Your task to perform on an android device: Go to Amazon Image 0: 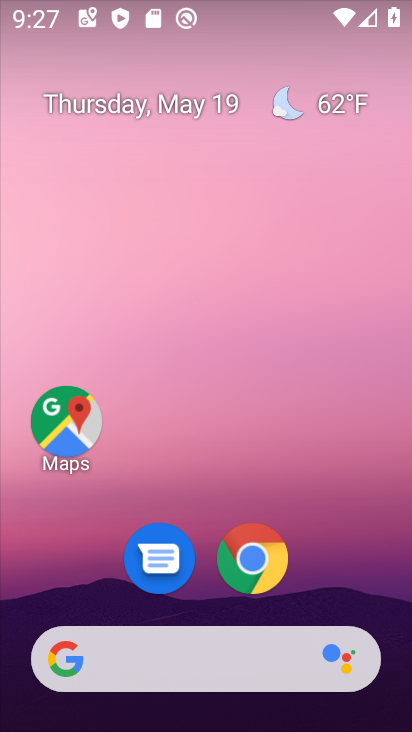
Step 0: click (255, 559)
Your task to perform on an android device: Go to Amazon Image 1: 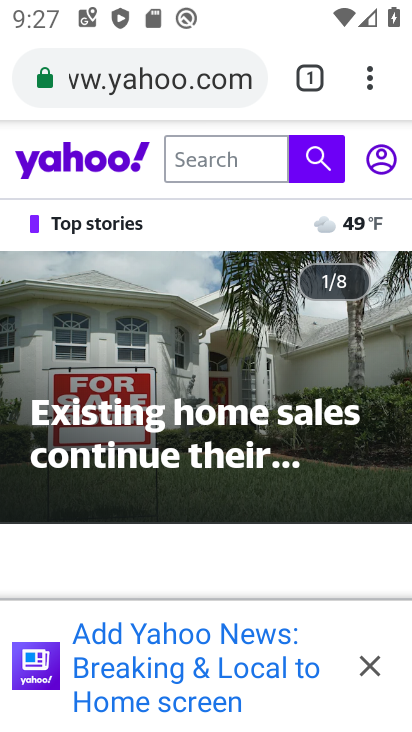
Step 1: click (245, 79)
Your task to perform on an android device: Go to Amazon Image 2: 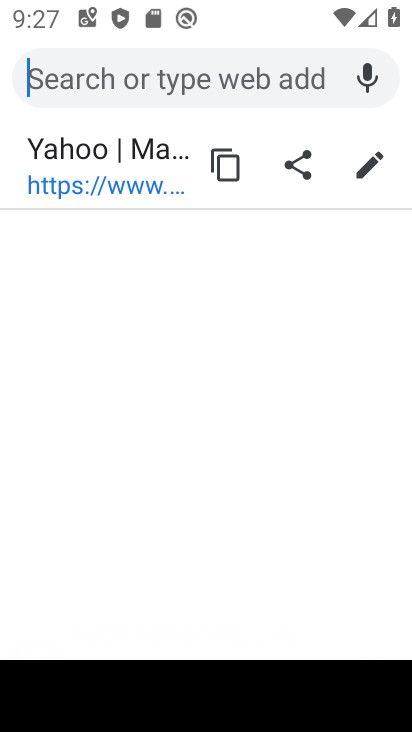
Step 2: type "Amazon"
Your task to perform on an android device: Go to Amazon Image 3: 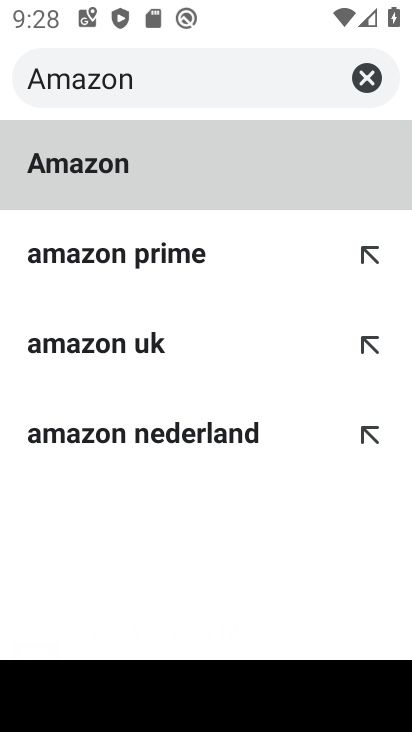
Step 3: click (84, 167)
Your task to perform on an android device: Go to Amazon Image 4: 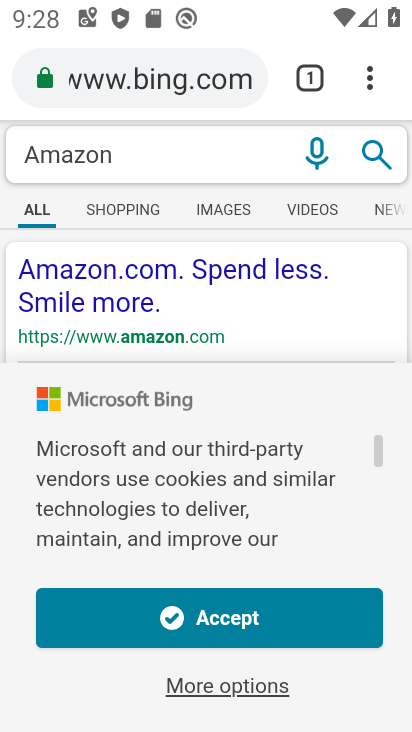
Step 4: click (68, 269)
Your task to perform on an android device: Go to Amazon Image 5: 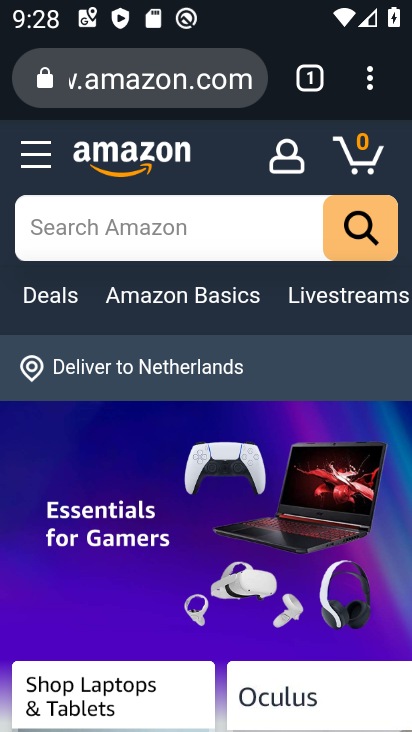
Step 5: task complete